Your task to perform on an android device: Go to notification settings Image 0: 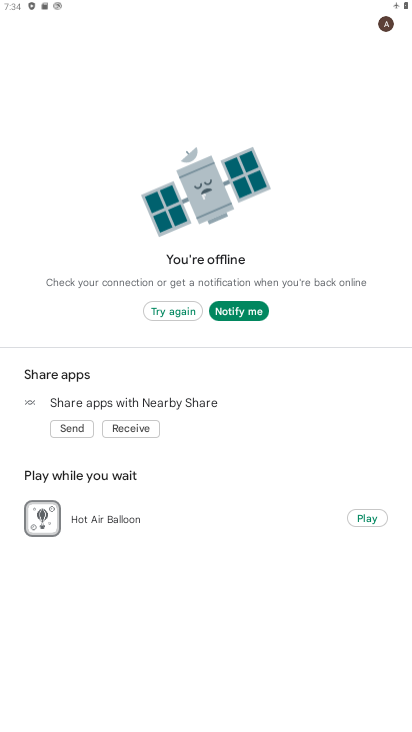
Step 0: press home button
Your task to perform on an android device: Go to notification settings Image 1: 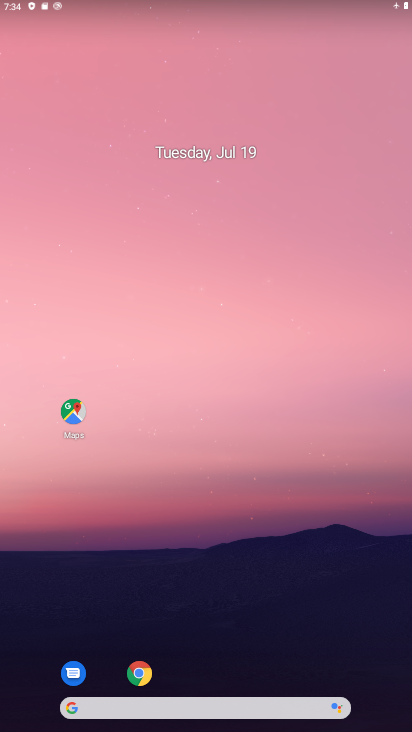
Step 1: drag from (274, 598) to (319, 61)
Your task to perform on an android device: Go to notification settings Image 2: 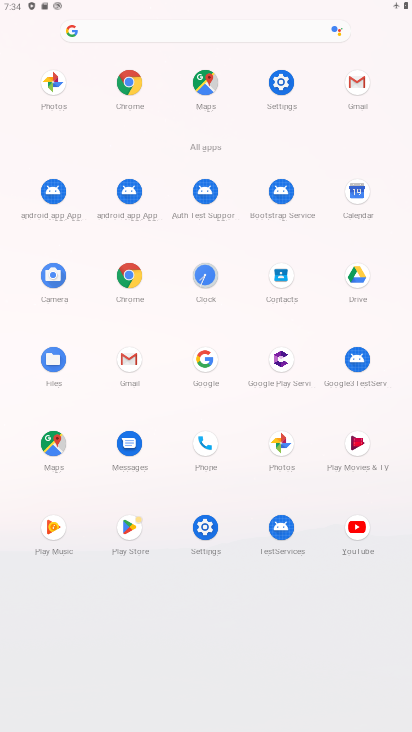
Step 2: click (291, 91)
Your task to perform on an android device: Go to notification settings Image 3: 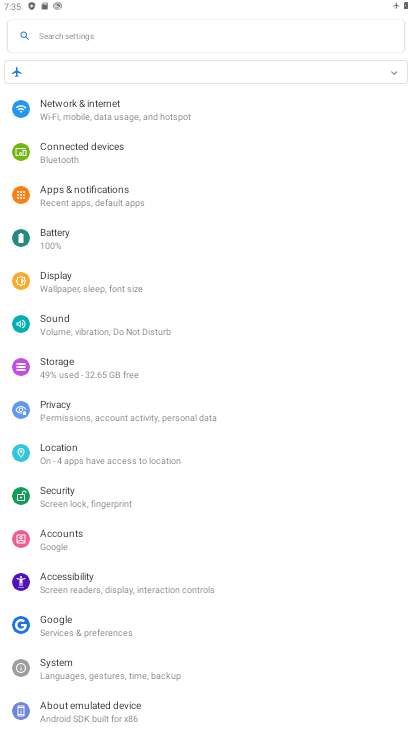
Step 3: click (75, 196)
Your task to perform on an android device: Go to notification settings Image 4: 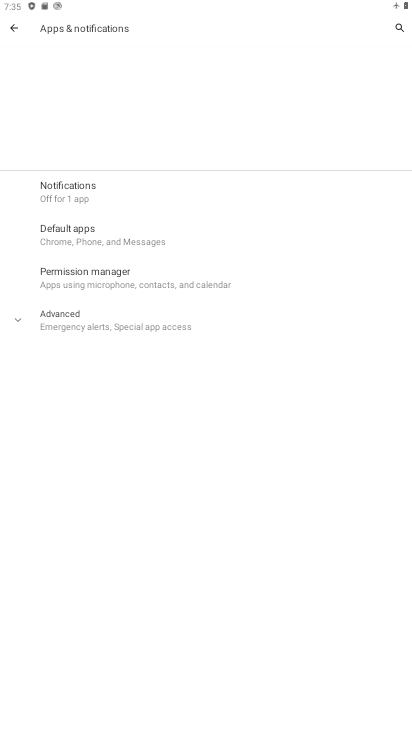
Step 4: click (75, 196)
Your task to perform on an android device: Go to notification settings Image 5: 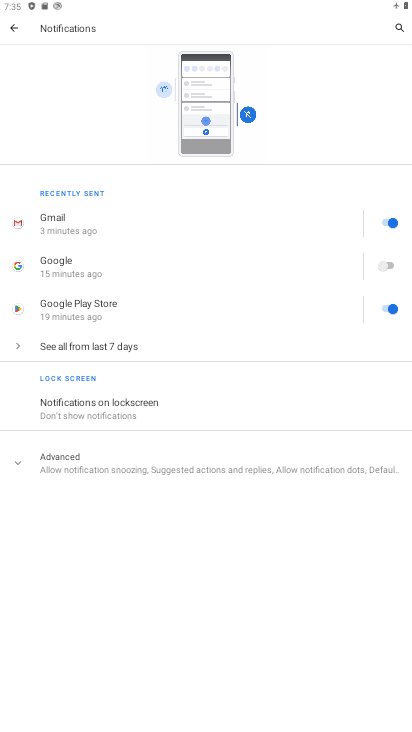
Step 5: task complete